Your task to perform on an android device: Go to internet settings Image 0: 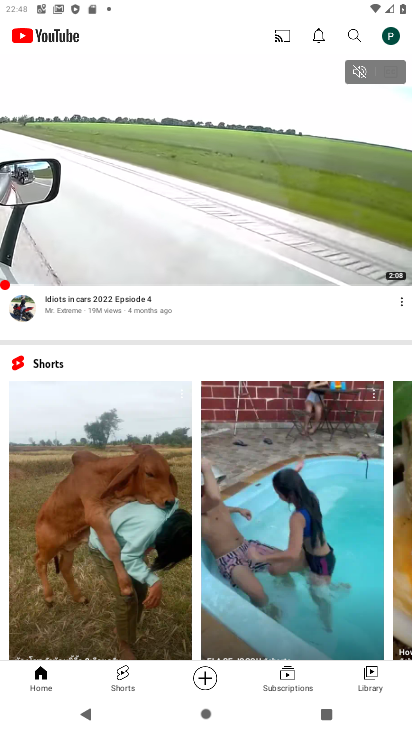
Step 0: press home button
Your task to perform on an android device: Go to internet settings Image 1: 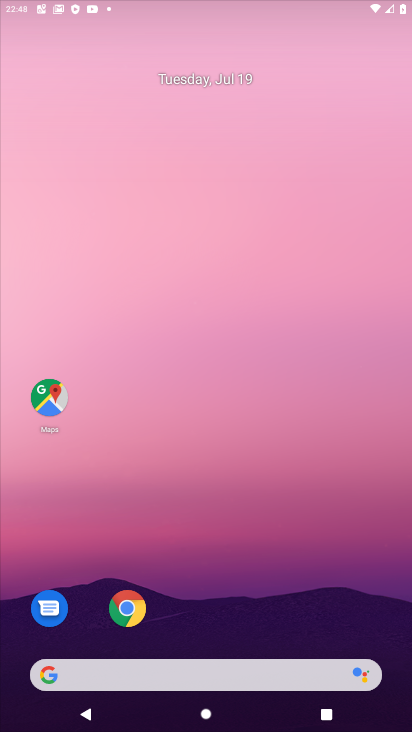
Step 1: drag from (317, 603) to (282, 132)
Your task to perform on an android device: Go to internet settings Image 2: 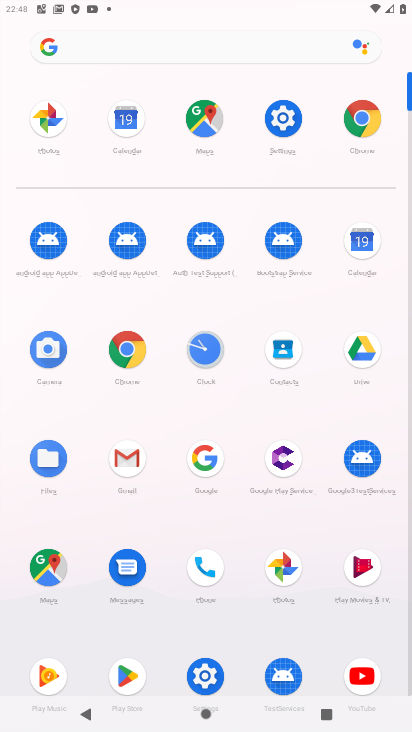
Step 2: click (286, 110)
Your task to perform on an android device: Go to internet settings Image 3: 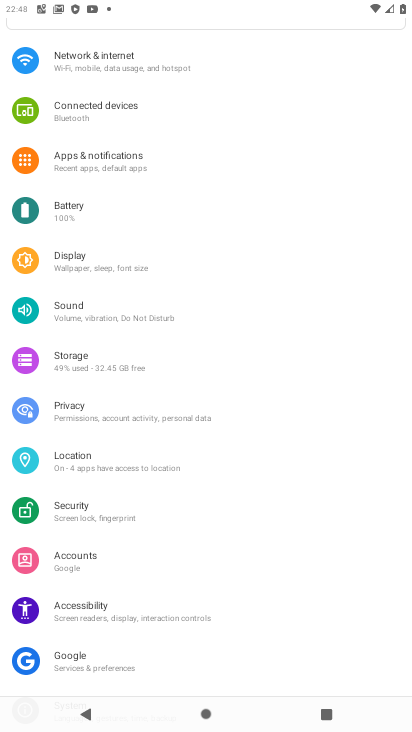
Step 3: click (106, 71)
Your task to perform on an android device: Go to internet settings Image 4: 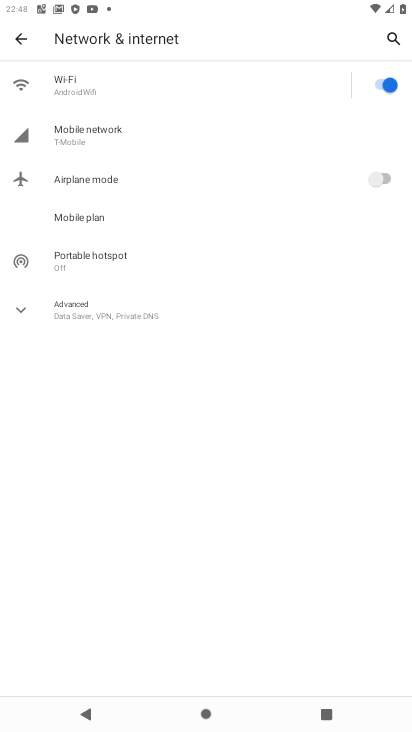
Step 4: click (129, 324)
Your task to perform on an android device: Go to internet settings Image 5: 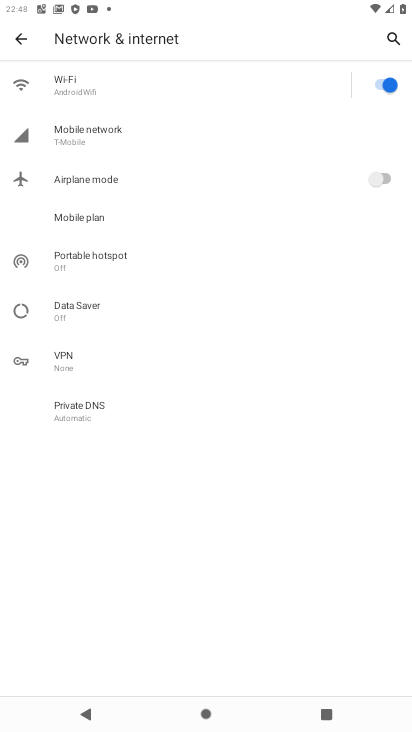
Step 5: task complete